Your task to perform on an android device: Go to network settings Image 0: 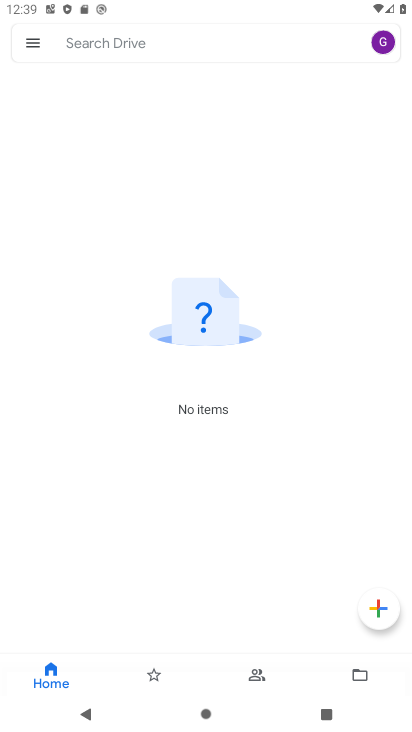
Step 0: press home button
Your task to perform on an android device: Go to network settings Image 1: 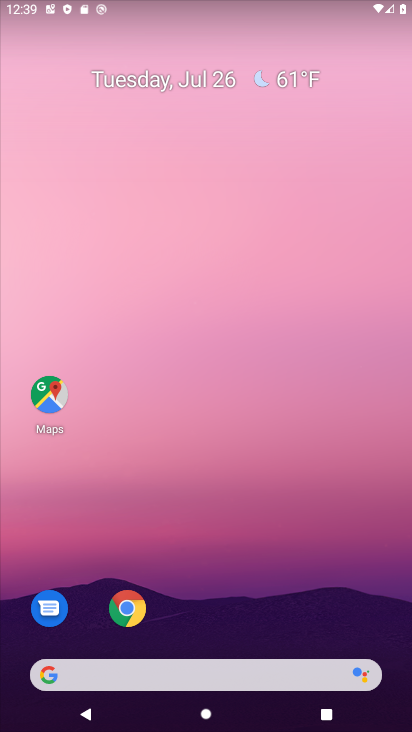
Step 1: drag from (331, 585) to (308, 97)
Your task to perform on an android device: Go to network settings Image 2: 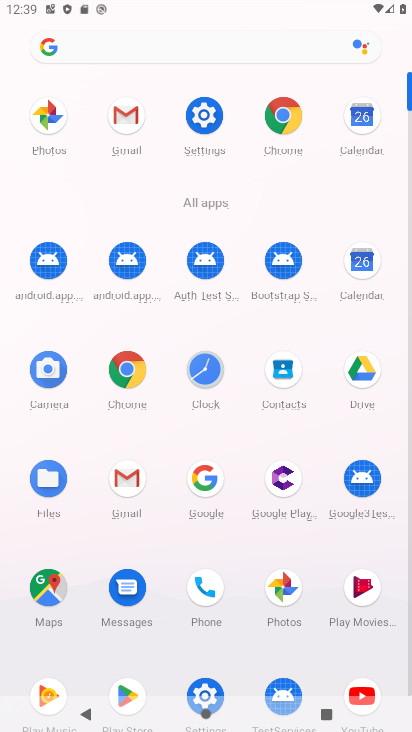
Step 2: click (213, 123)
Your task to perform on an android device: Go to network settings Image 3: 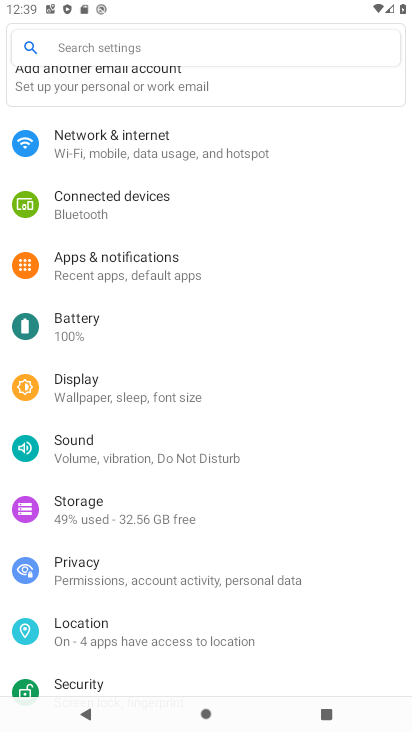
Step 3: drag from (356, 443) to (344, 374)
Your task to perform on an android device: Go to network settings Image 4: 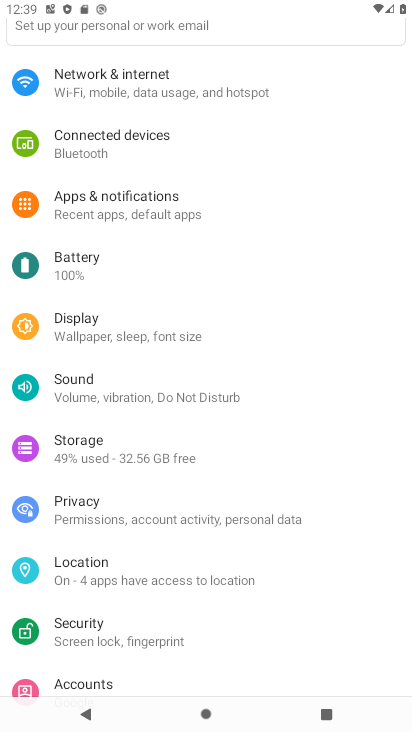
Step 4: drag from (344, 466) to (342, 415)
Your task to perform on an android device: Go to network settings Image 5: 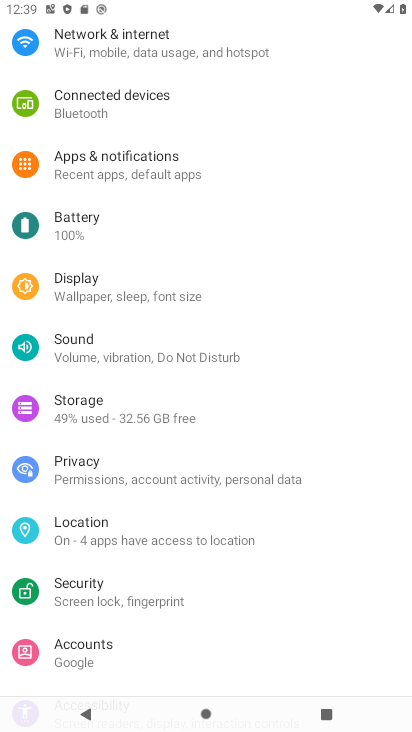
Step 5: drag from (340, 476) to (333, 406)
Your task to perform on an android device: Go to network settings Image 6: 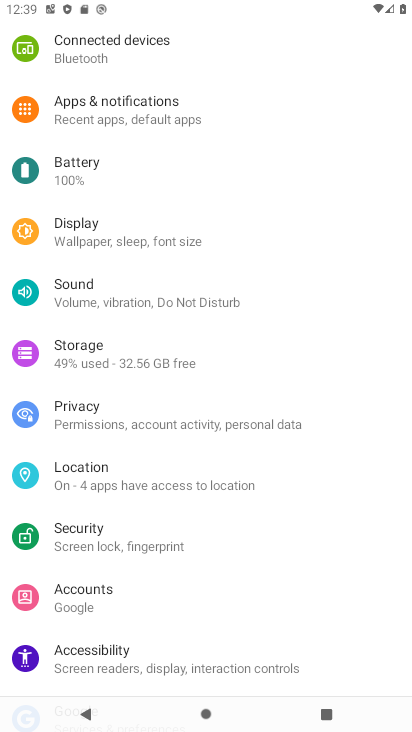
Step 6: drag from (331, 509) to (328, 419)
Your task to perform on an android device: Go to network settings Image 7: 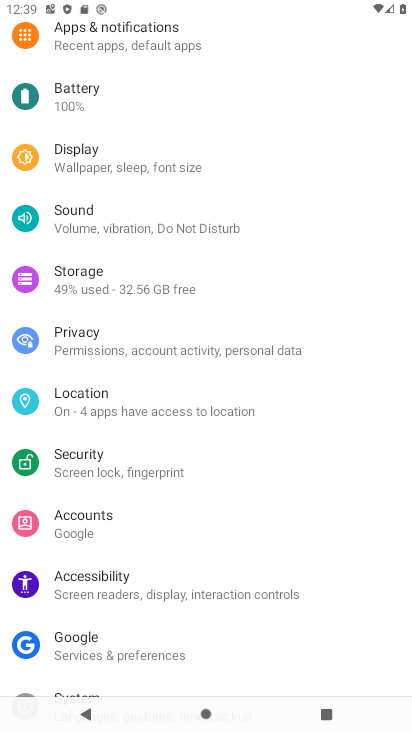
Step 7: drag from (327, 504) to (327, 442)
Your task to perform on an android device: Go to network settings Image 8: 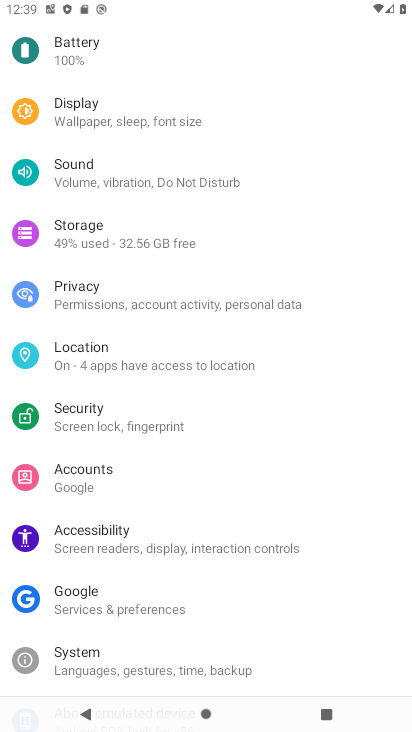
Step 8: drag from (353, 534) to (350, 456)
Your task to perform on an android device: Go to network settings Image 9: 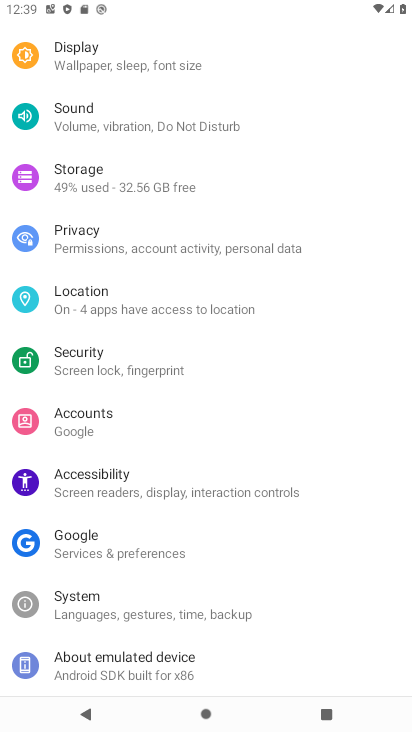
Step 9: drag from (349, 538) to (349, 464)
Your task to perform on an android device: Go to network settings Image 10: 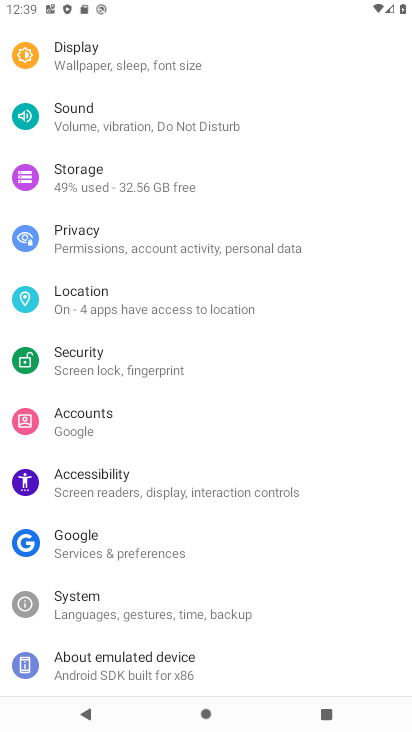
Step 10: drag from (339, 337) to (340, 437)
Your task to perform on an android device: Go to network settings Image 11: 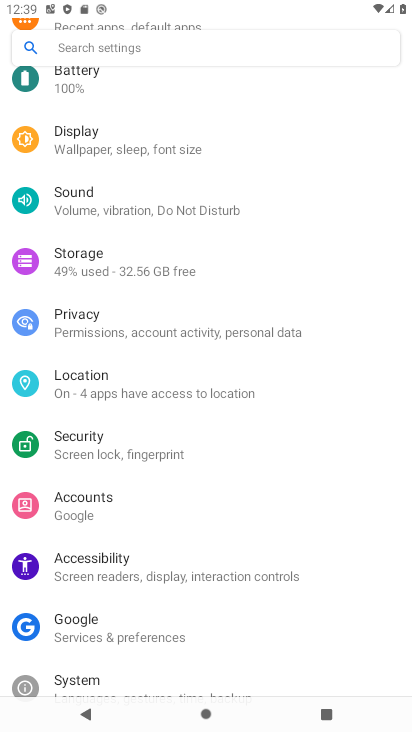
Step 11: drag from (346, 287) to (345, 390)
Your task to perform on an android device: Go to network settings Image 12: 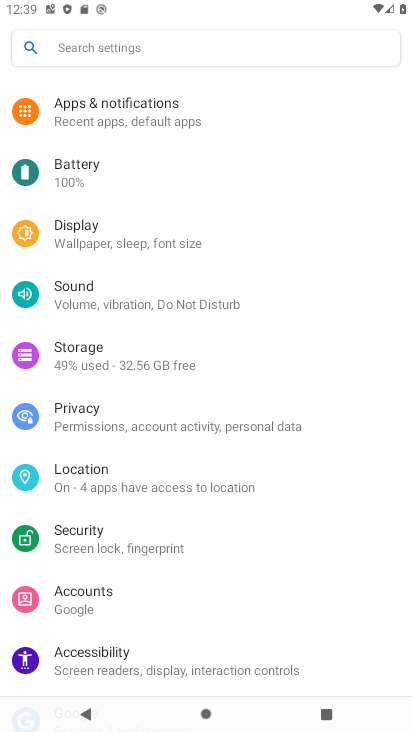
Step 12: drag from (335, 303) to (340, 394)
Your task to perform on an android device: Go to network settings Image 13: 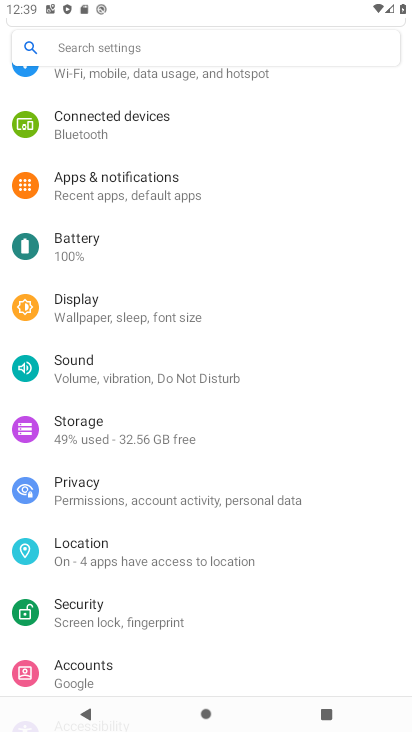
Step 13: drag from (336, 278) to (348, 407)
Your task to perform on an android device: Go to network settings Image 14: 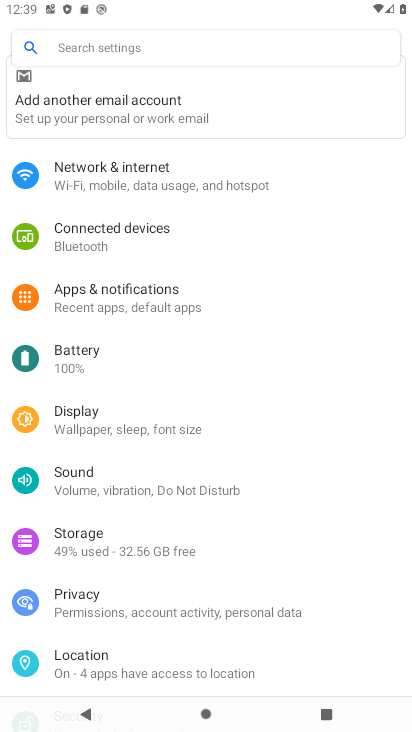
Step 14: drag from (334, 231) to (339, 357)
Your task to perform on an android device: Go to network settings Image 15: 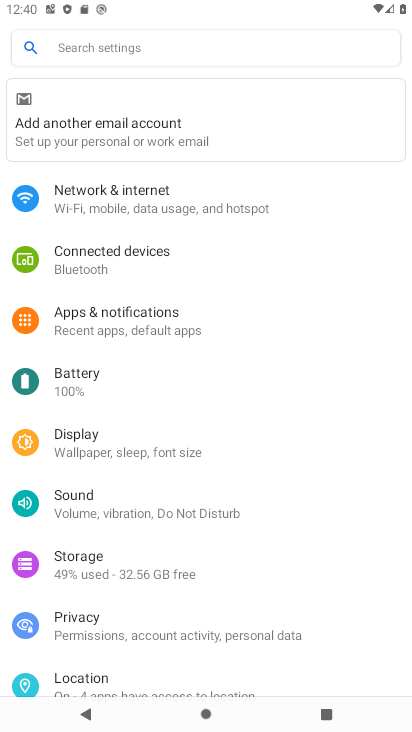
Step 15: click (224, 196)
Your task to perform on an android device: Go to network settings Image 16: 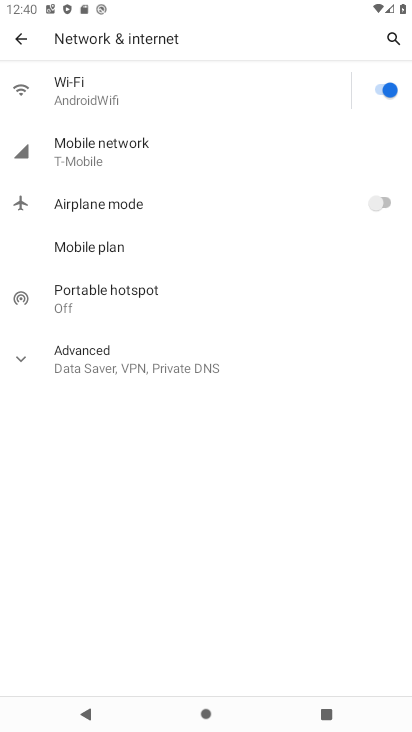
Step 16: click (168, 353)
Your task to perform on an android device: Go to network settings Image 17: 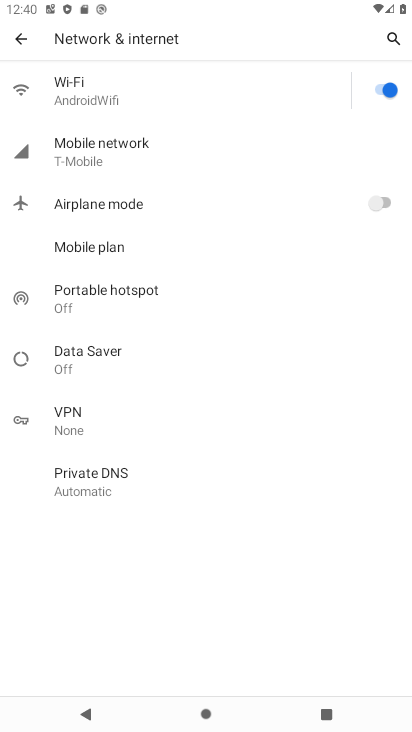
Step 17: task complete